Your task to perform on an android device: Turn on the flashlight Image 0: 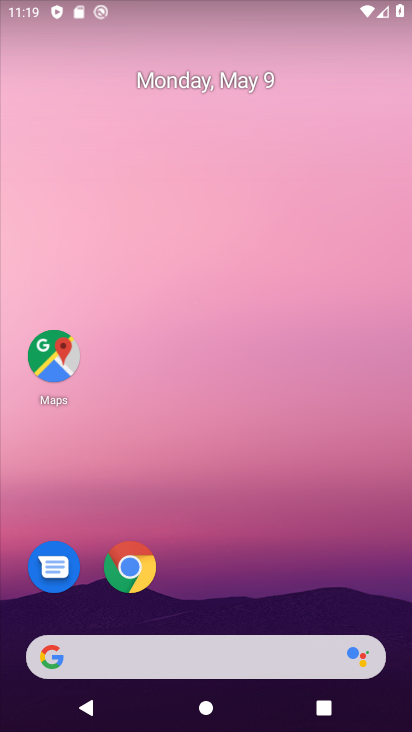
Step 0: drag from (355, 3) to (283, 641)
Your task to perform on an android device: Turn on the flashlight Image 1: 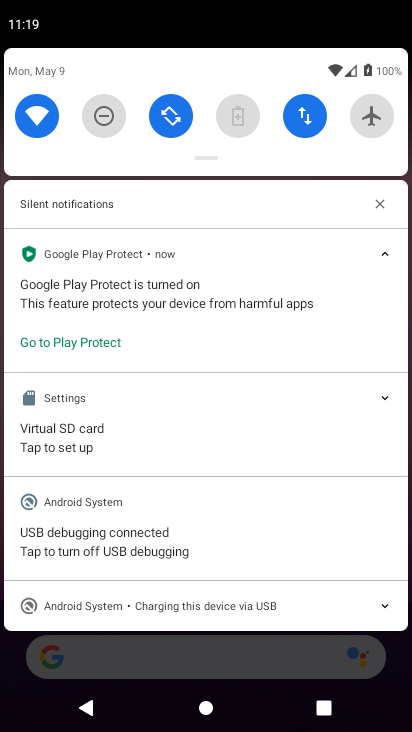
Step 1: task complete